Your task to perform on an android device: What's on my calendar today? Image 0: 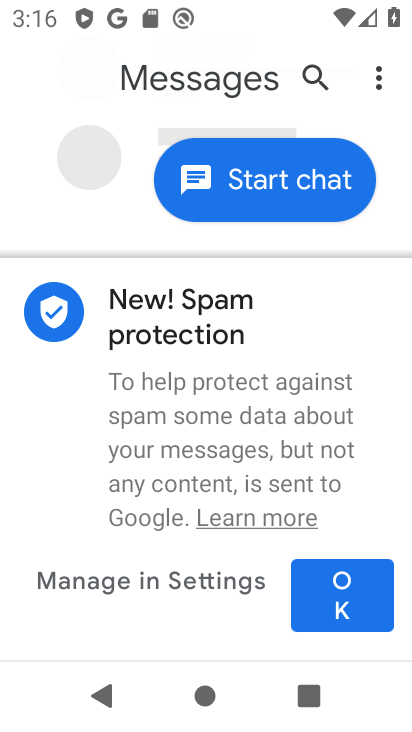
Step 0: press back button
Your task to perform on an android device: What's on my calendar today? Image 1: 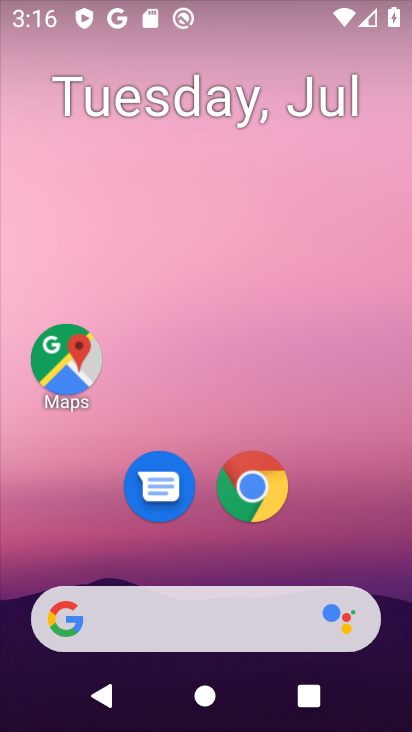
Step 1: drag from (158, 567) to (226, 0)
Your task to perform on an android device: What's on my calendar today? Image 2: 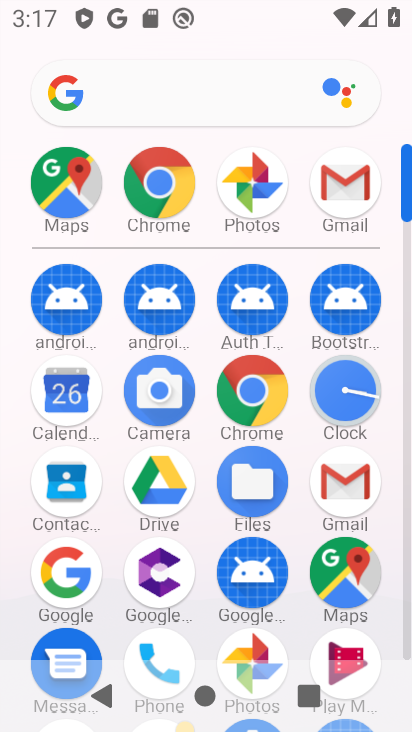
Step 2: click (90, 381)
Your task to perform on an android device: What's on my calendar today? Image 3: 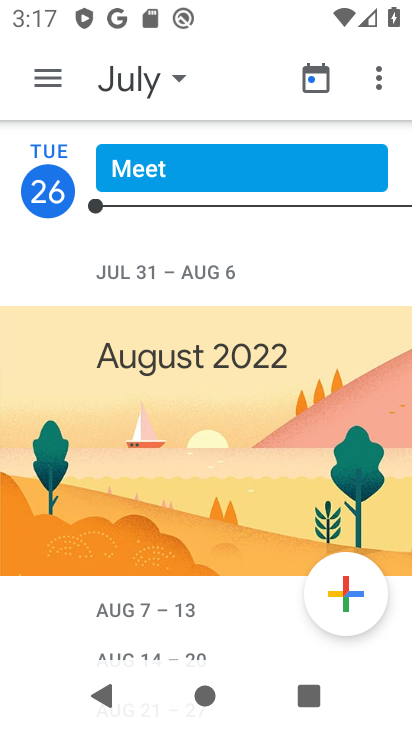
Step 3: task complete